Your task to perform on an android device: clear all cookies in the chrome app Image 0: 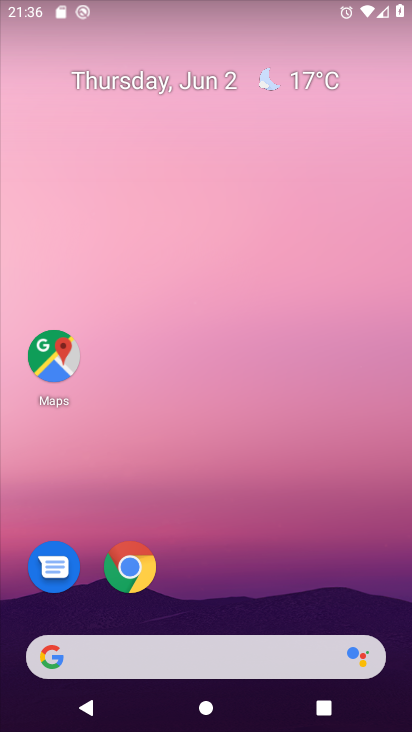
Step 0: click (134, 583)
Your task to perform on an android device: clear all cookies in the chrome app Image 1: 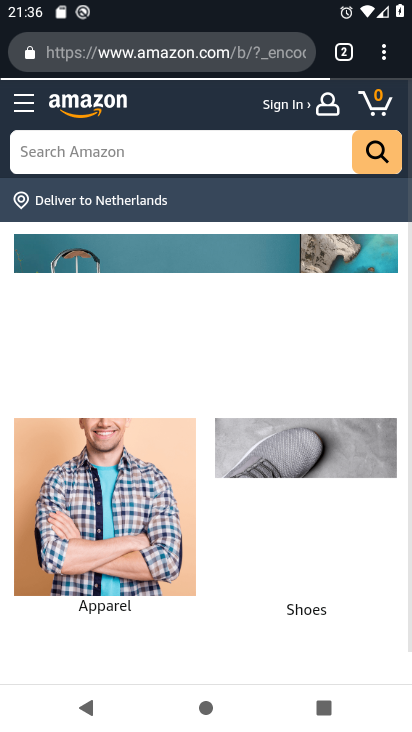
Step 1: click (382, 54)
Your task to perform on an android device: clear all cookies in the chrome app Image 2: 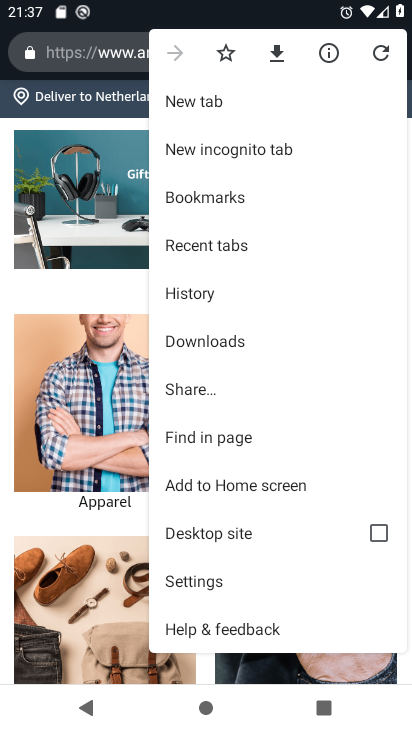
Step 2: click (210, 298)
Your task to perform on an android device: clear all cookies in the chrome app Image 3: 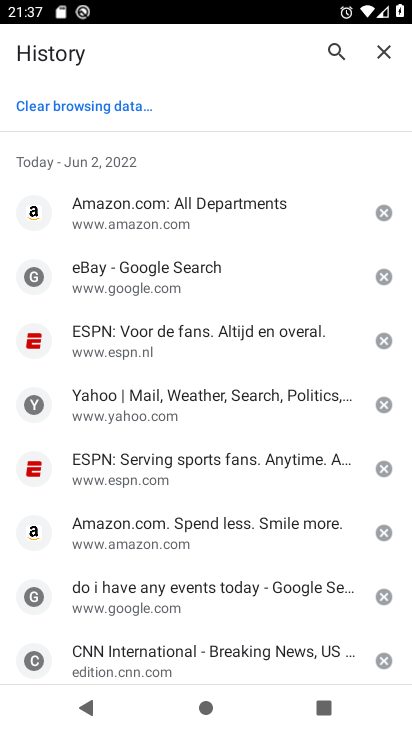
Step 3: click (98, 106)
Your task to perform on an android device: clear all cookies in the chrome app Image 4: 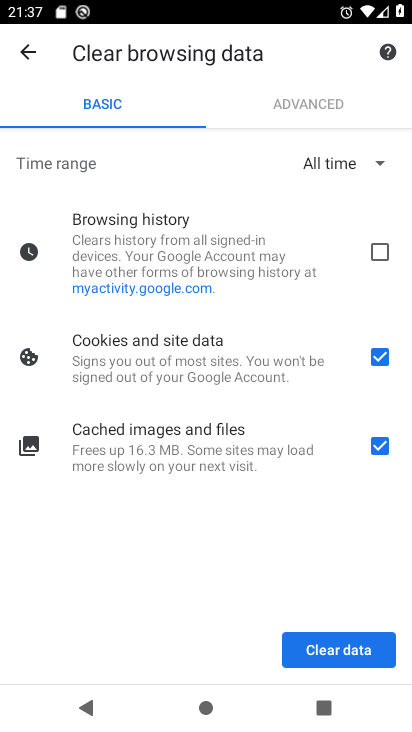
Step 4: click (363, 444)
Your task to perform on an android device: clear all cookies in the chrome app Image 5: 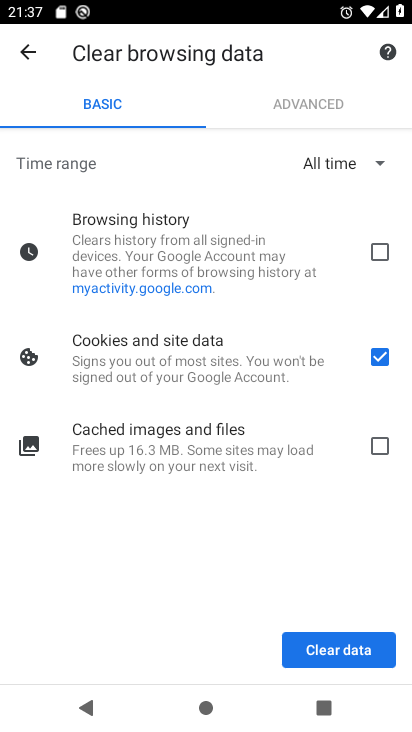
Step 5: click (348, 654)
Your task to perform on an android device: clear all cookies in the chrome app Image 6: 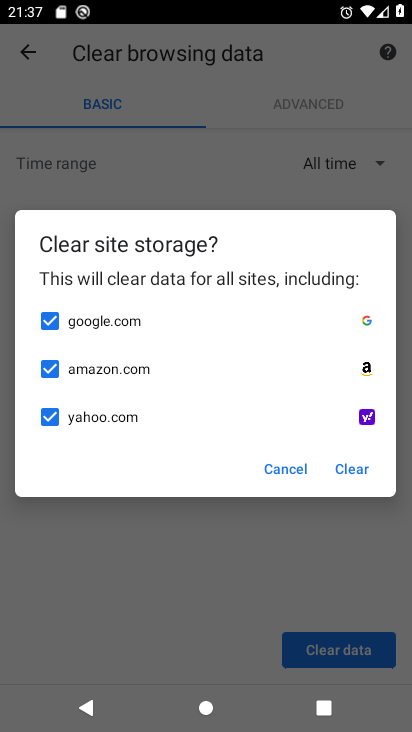
Step 6: click (365, 473)
Your task to perform on an android device: clear all cookies in the chrome app Image 7: 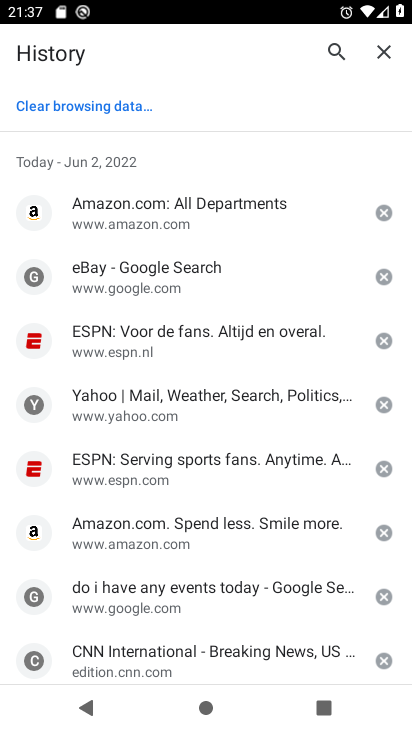
Step 7: task complete